Your task to perform on an android device: What is the recent news? Image 0: 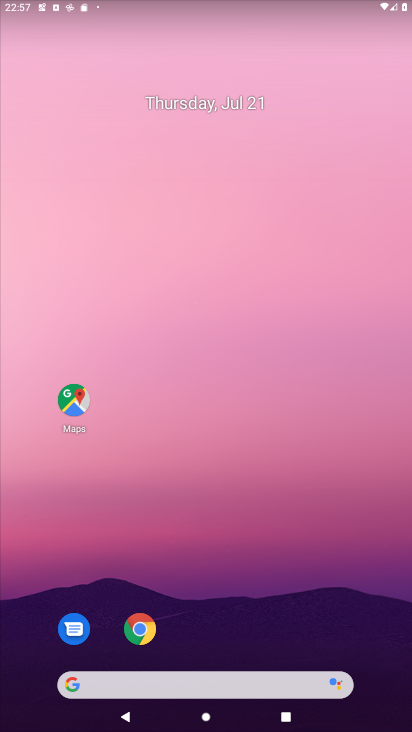
Step 0: drag from (280, 629) to (240, 111)
Your task to perform on an android device: What is the recent news? Image 1: 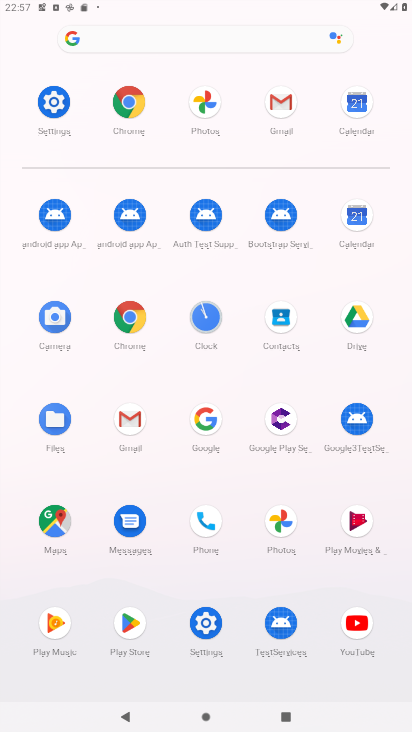
Step 1: click (206, 420)
Your task to perform on an android device: What is the recent news? Image 2: 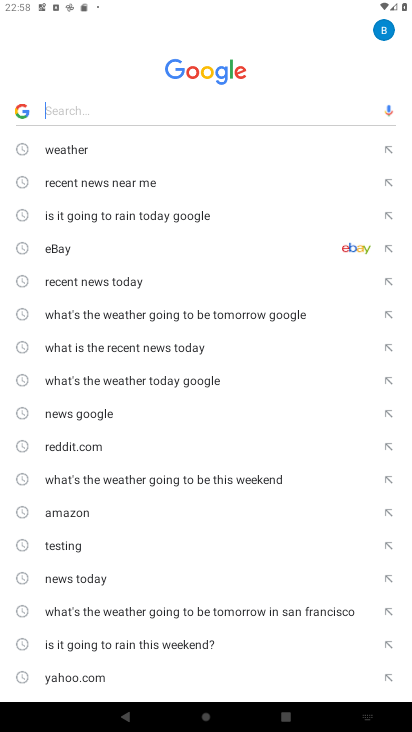
Step 2: click (109, 279)
Your task to perform on an android device: What is the recent news? Image 3: 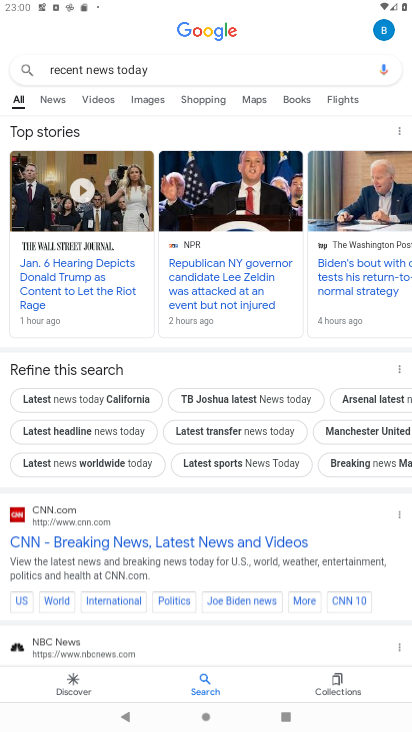
Step 3: task complete